Your task to perform on an android device: Open battery settings Image 0: 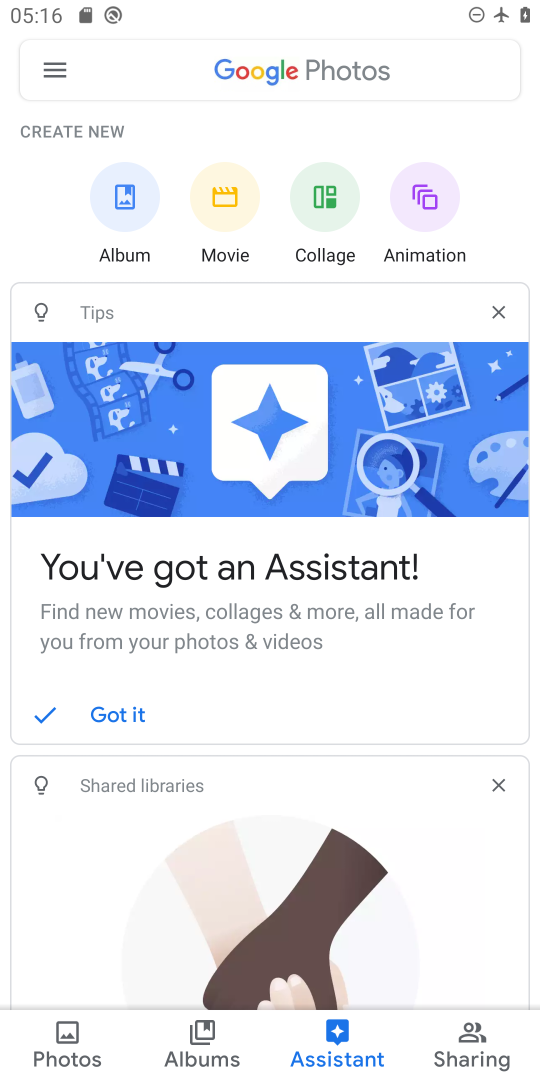
Step 0: press home button
Your task to perform on an android device: Open battery settings Image 1: 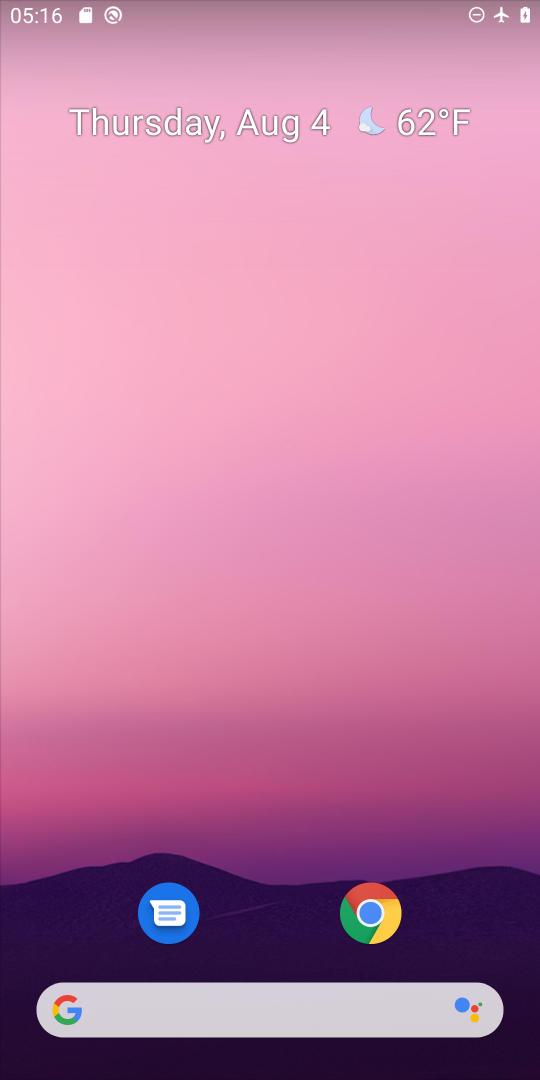
Step 1: drag from (365, 991) to (403, 13)
Your task to perform on an android device: Open battery settings Image 2: 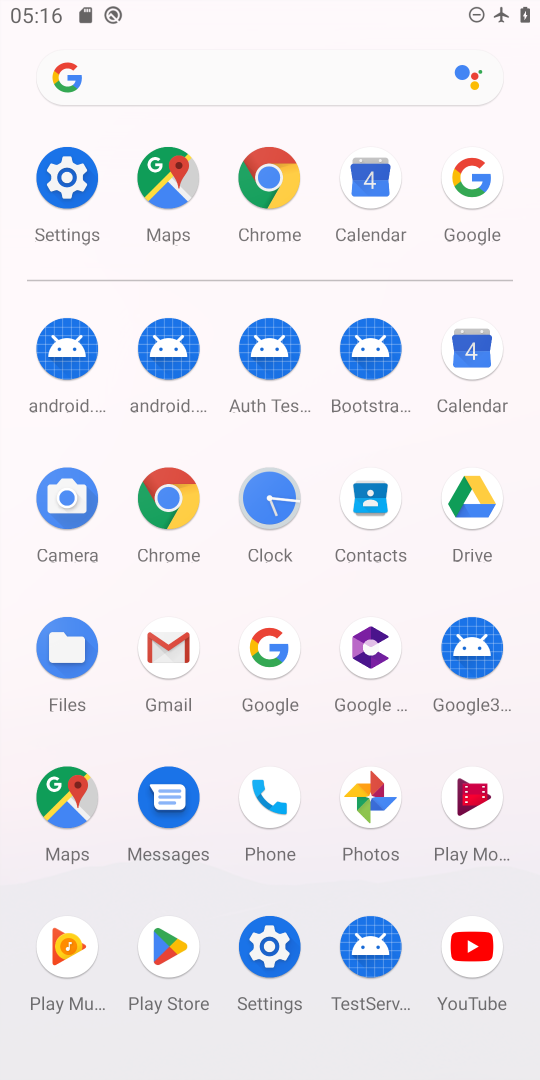
Step 2: click (82, 181)
Your task to perform on an android device: Open battery settings Image 3: 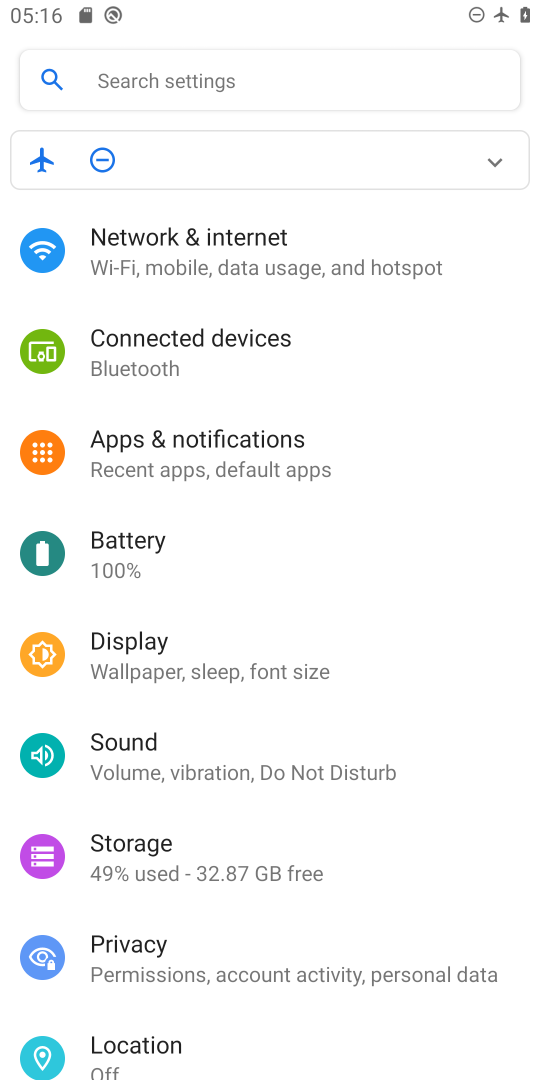
Step 3: click (131, 554)
Your task to perform on an android device: Open battery settings Image 4: 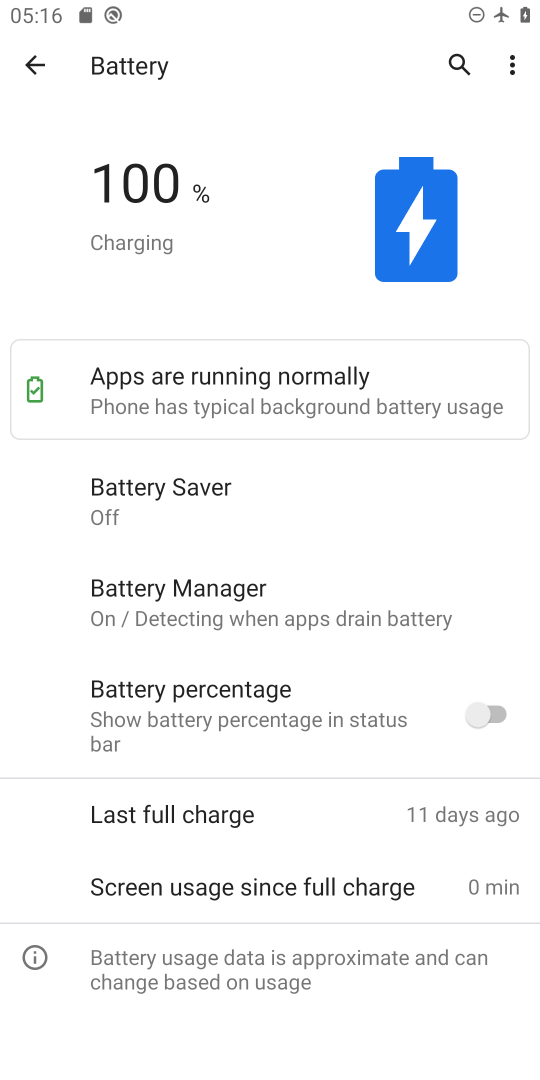
Step 4: task complete